Your task to perform on an android device: Open Chrome and go to settings Image 0: 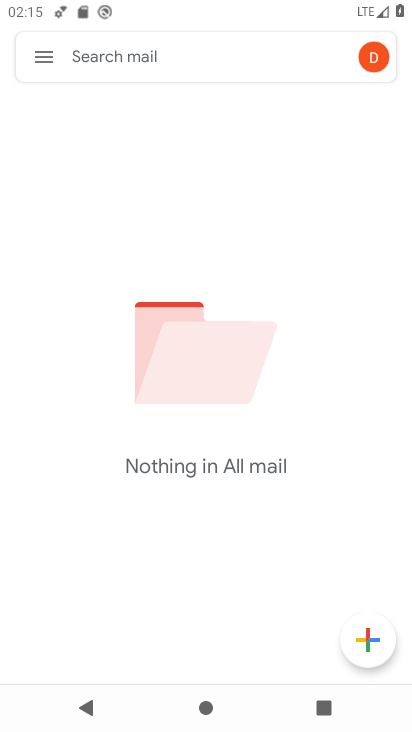
Step 0: press home button
Your task to perform on an android device: Open Chrome and go to settings Image 1: 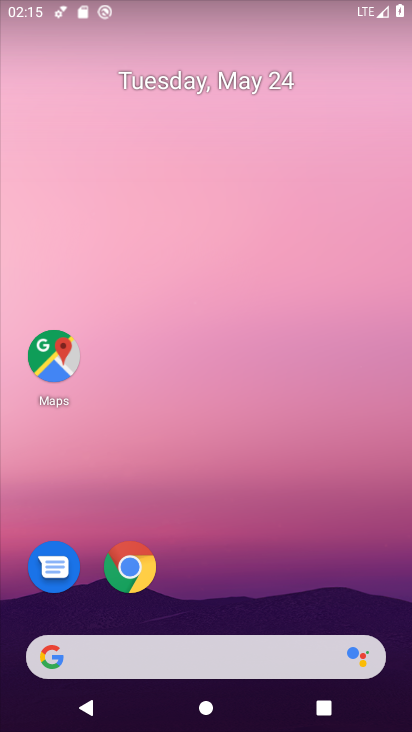
Step 1: drag from (226, 583) to (267, 72)
Your task to perform on an android device: Open Chrome and go to settings Image 2: 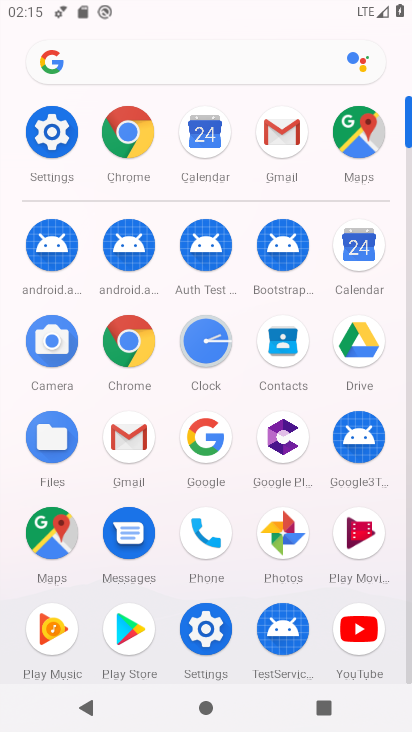
Step 2: click (124, 342)
Your task to perform on an android device: Open Chrome and go to settings Image 3: 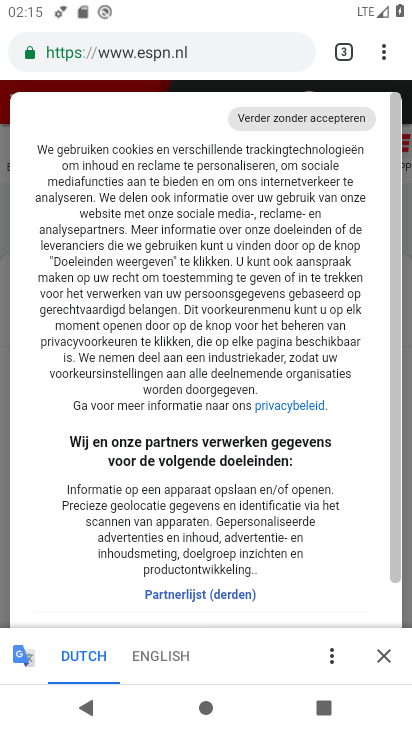
Step 3: click (382, 56)
Your task to perform on an android device: Open Chrome and go to settings Image 4: 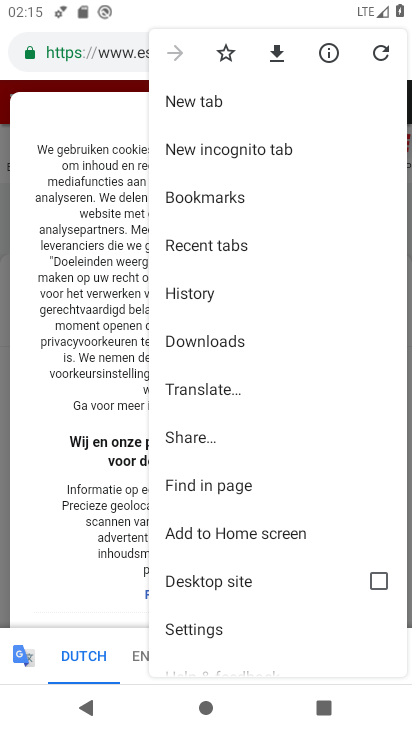
Step 4: drag from (215, 567) to (254, 336)
Your task to perform on an android device: Open Chrome and go to settings Image 5: 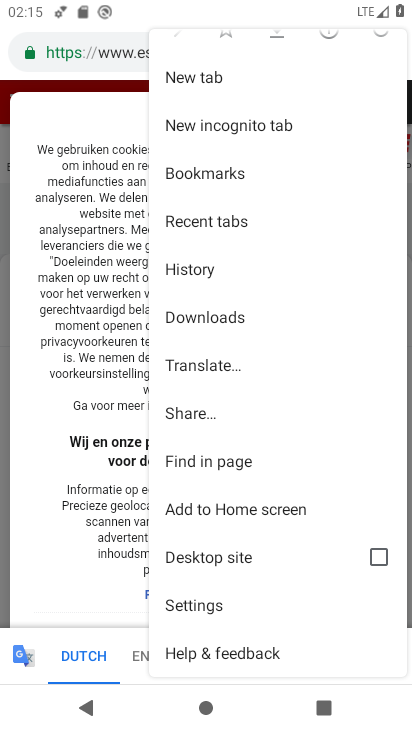
Step 5: click (207, 610)
Your task to perform on an android device: Open Chrome and go to settings Image 6: 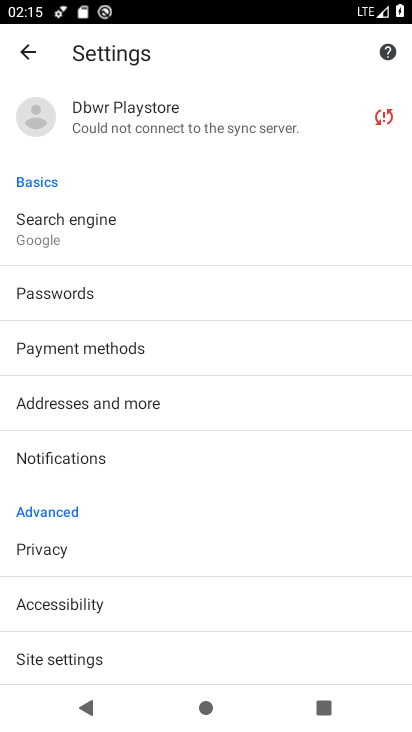
Step 6: task complete